Your task to perform on an android device: Open sound settings Image 0: 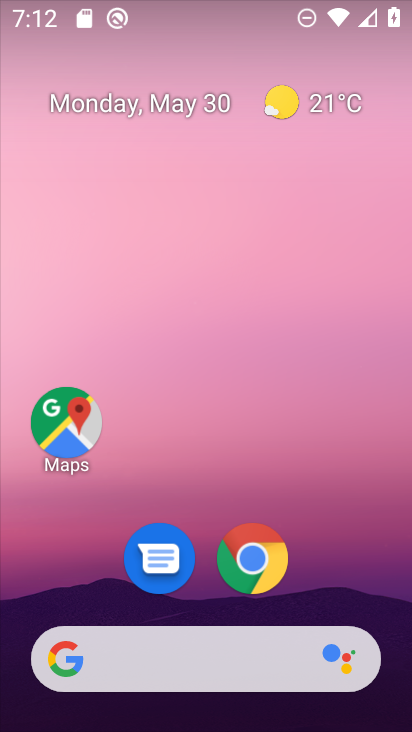
Step 0: drag from (321, 554) to (163, 90)
Your task to perform on an android device: Open sound settings Image 1: 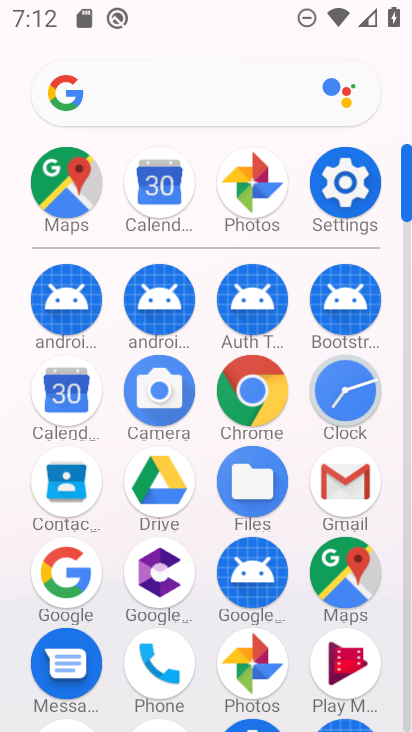
Step 1: click (354, 192)
Your task to perform on an android device: Open sound settings Image 2: 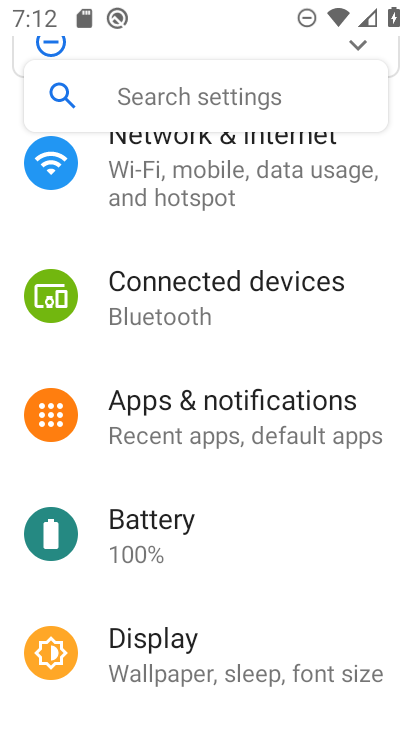
Step 2: drag from (283, 579) to (204, 147)
Your task to perform on an android device: Open sound settings Image 3: 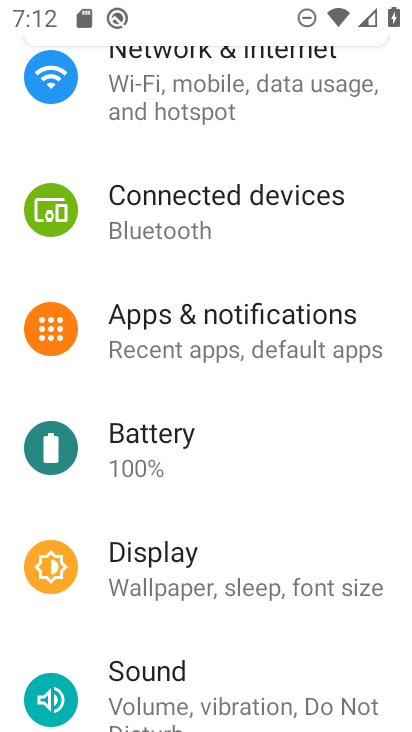
Step 3: click (155, 674)
Your task to perform on an android device: Open sound settings Image 4: 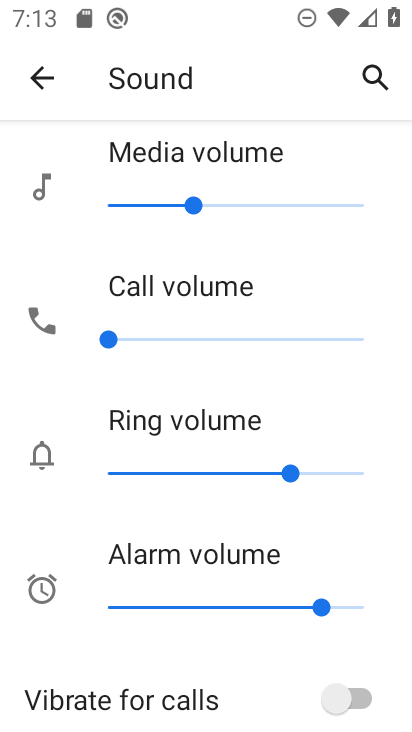
Step 4: task complete